Your task to perform on an android device: Go to wifi settings Image 0: 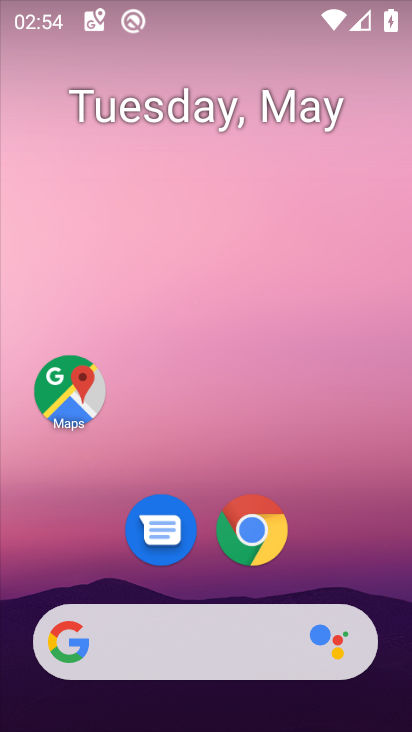
Step 0: drag from (104, 94) to (104, 533)
Your task to perform on an android device: Go to wifi settings Image 1: 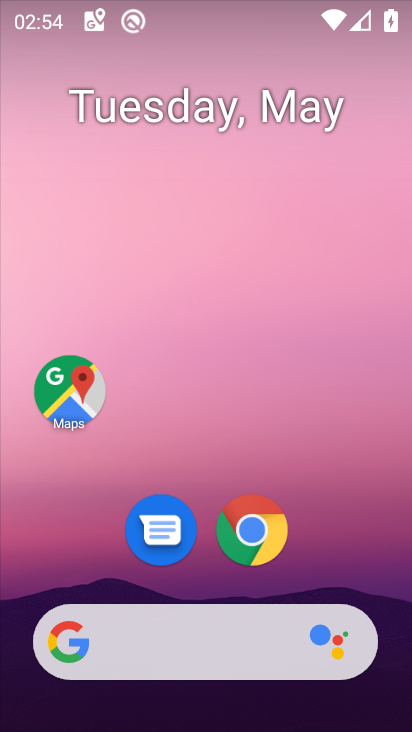
Step 1: drag from (219, 18) to (197, 469)
Your task to perform on an android device: Go to wifi settings Image 2: 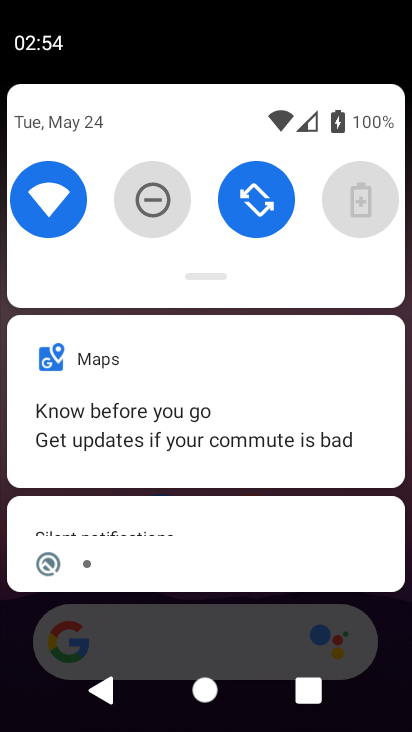
Step 2: click (47, 194)
Your task to perform on an android device: Go to wifi settings Image 3: 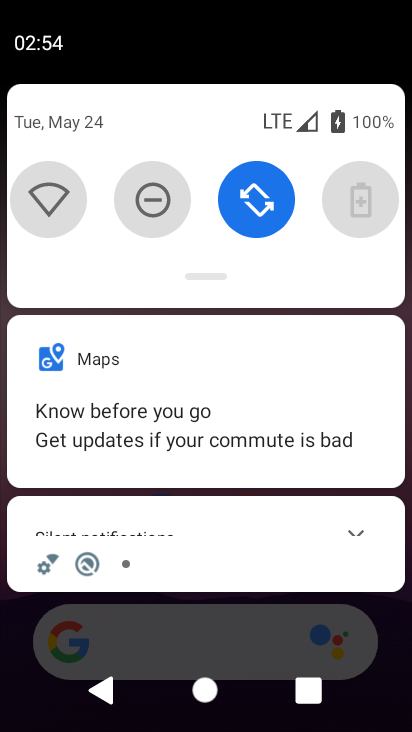
Step 3: click (48, 191)
Your task to perform on an android device: Go to wifi settings Image 4: 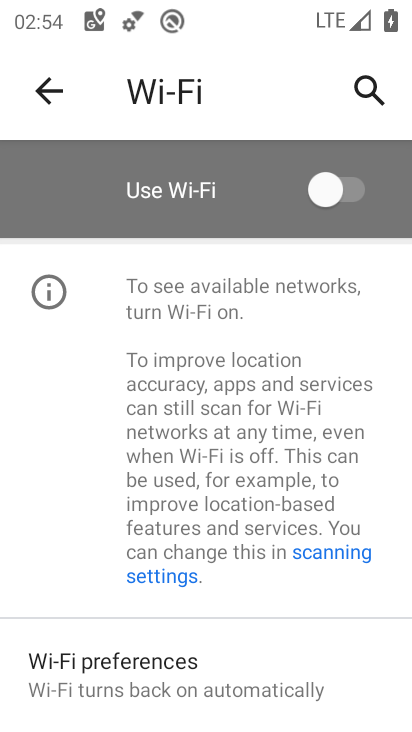
Step 4: click (316, 196)
Your task to perform on an android device: Go to wifi settings Image 5: 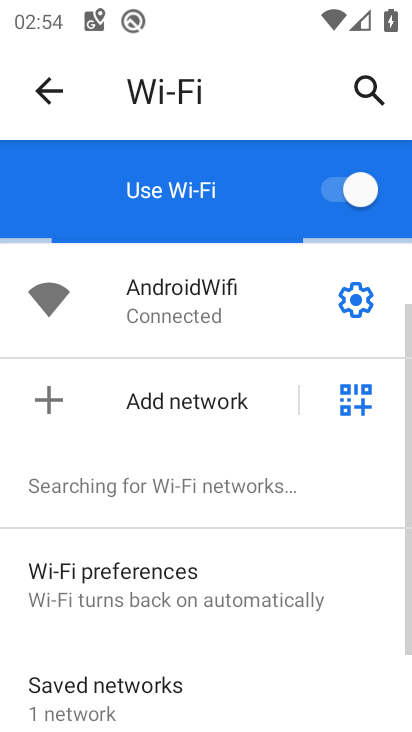
Step 5: click (352, 301)
Your task to perform on an android device: Go to wifi settings Image 6: 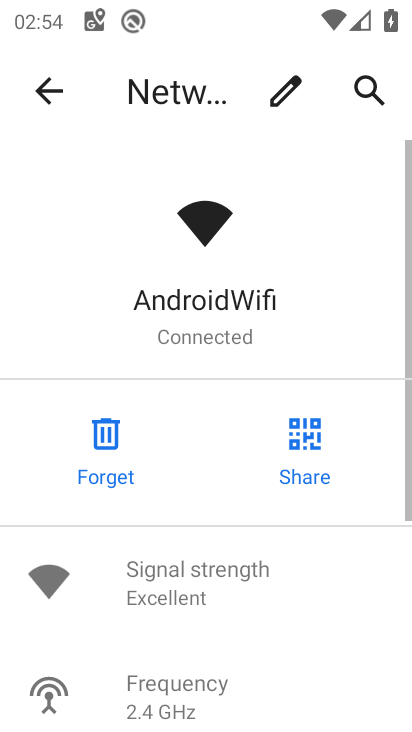
Step 6: task complete